Your task to perform on an android device: Open calendar and show me the third week of next month Image 0: 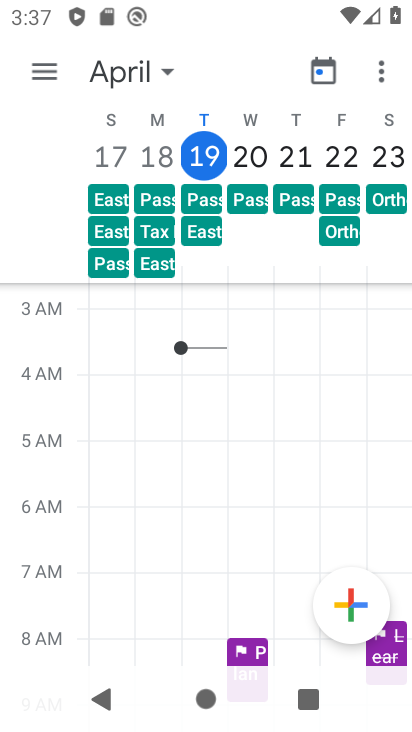
Step 0: click (162, 75)
Your task to perform on an android device: Open calendar and show me the third week of next month Image 1: 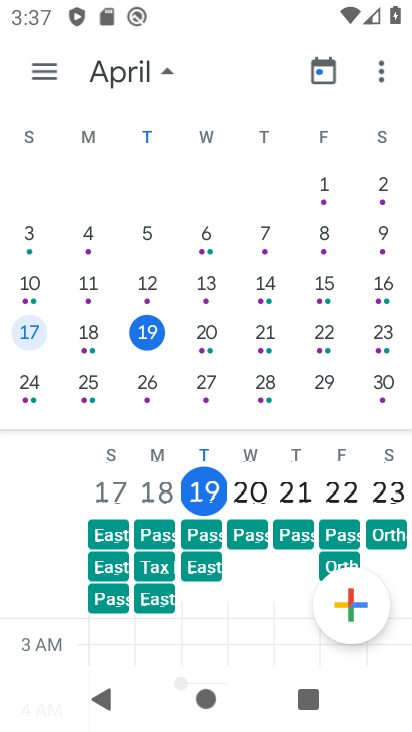
Step 1: drag from (391, 301) to (22, 217)
Your task to perform on an android device: Open calendar and show me the third week of next month Image 2: 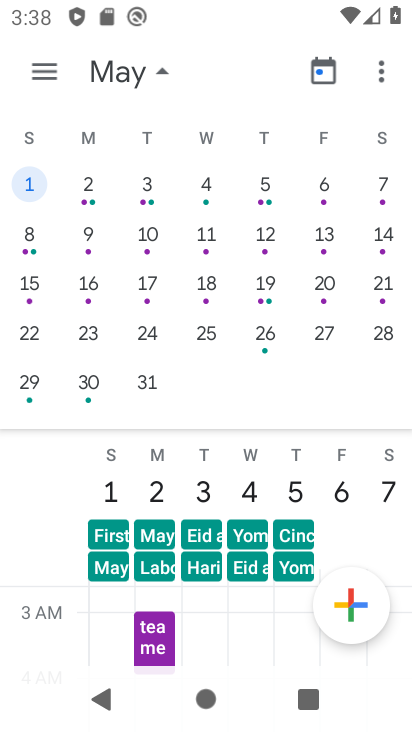
Step 2: click (56, 81)
Your task to perform on an android device: Open calendar and show me the third week of next month Image 3: 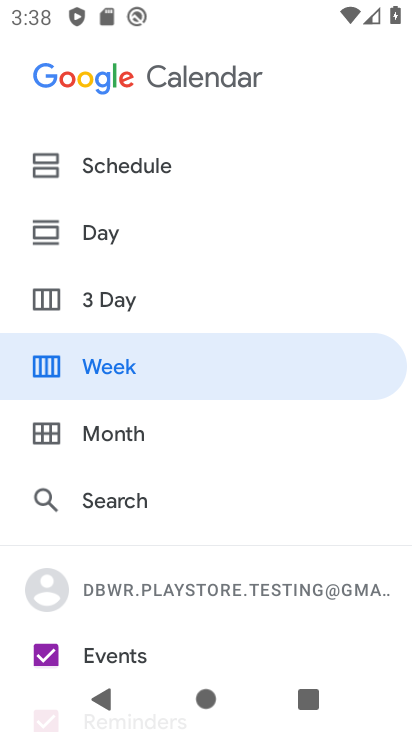
Step 3: click (147, 380)
Your task to perform on an android device: Open calendar and show me the third week of next month Image 4: 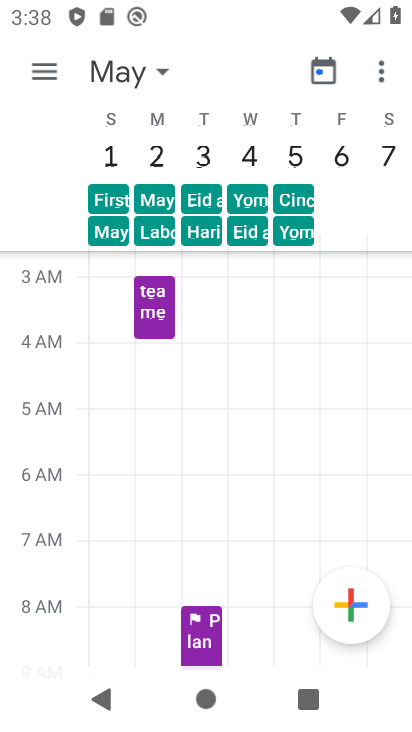
Step 4: task complete